Your task to perform on an android device: install app "Paramount+ | Peak Streaming" Image 0: 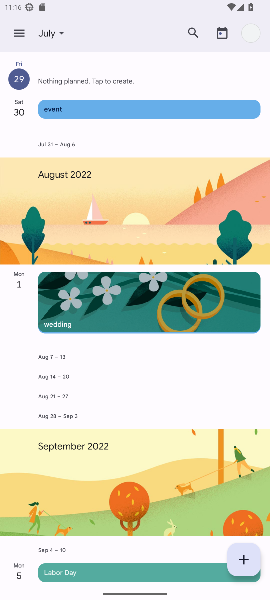
Step 0: press home button
Your task to perform on an android device: install app "Paramount+ | Peak Streaming" Image 1: 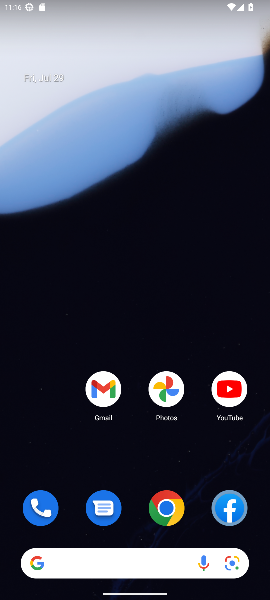
Step 1: drag from (129, 565) to (162, 103)
Your task to perform on an android device: install app "Paramount+ | Peak Streaming" Image 2: 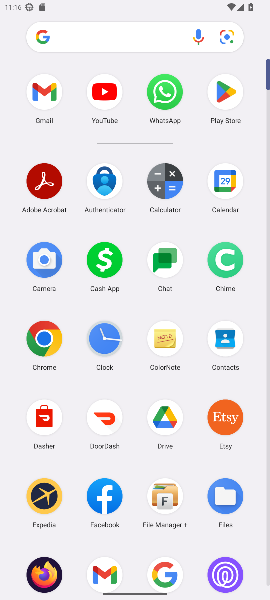
Step 2: click (226, 90)
Your task to perform on an android device: install app "Paramount+ | Peak Streaming" Image 3: 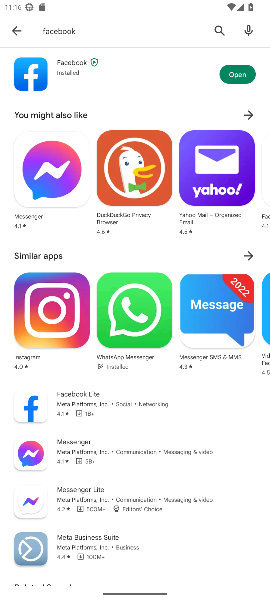
Step 3: click (219, 29)
Your task to perform on an android device: install app "Paramount+ | Peak Streaming" Image 4: 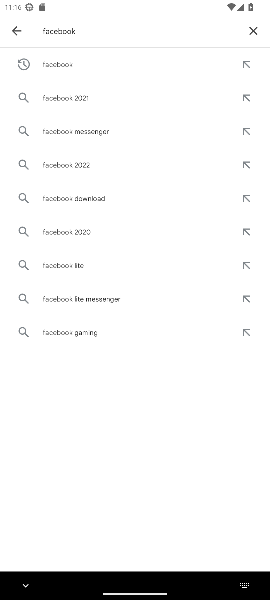
Step 4: click (252, 31)
Your task to perform on an android device: install app "Paramount+ | Peak Streaming" Image 5: 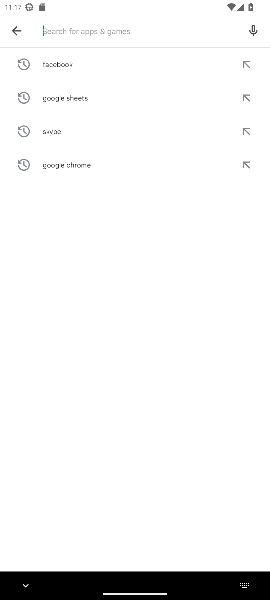
Step 5: type "paramount+ | peak streaming"
Your task to perform on an android device: install app "Paramount+ | Peak Streaming" Image 6: 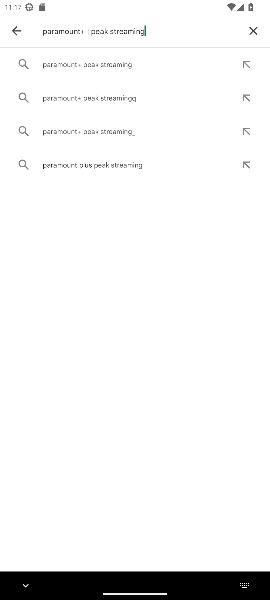
Step 6: click (118, 60)
Your task to perform on an android device: install app "Paramount+ | Peak Streaming" Image 7: 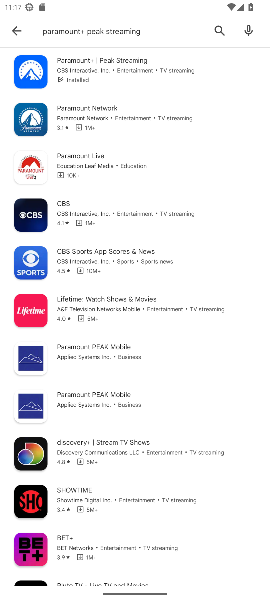
Step 7: click (141, 66)
Your task to perform on an android device: install app "Paramount+ | Peak Streaming" Image 8: 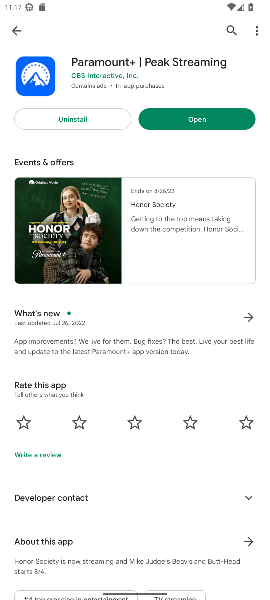
Step 8: task complete